Your task to perform on an android device: Open the web browser Image 0: 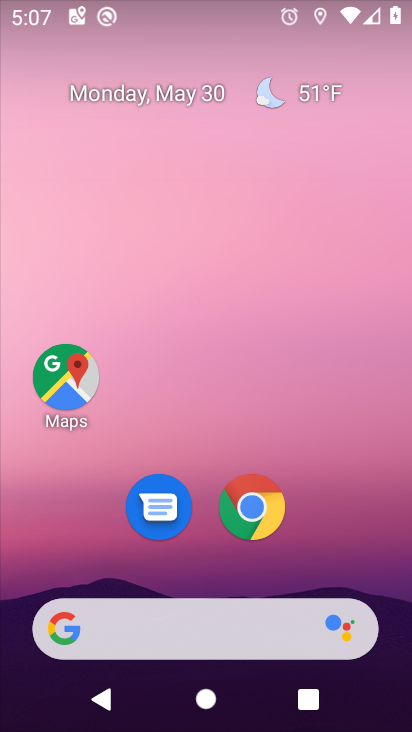
Step 0: click (283, 504)
Your task to perform on an android device: Open the web browser Image 1: 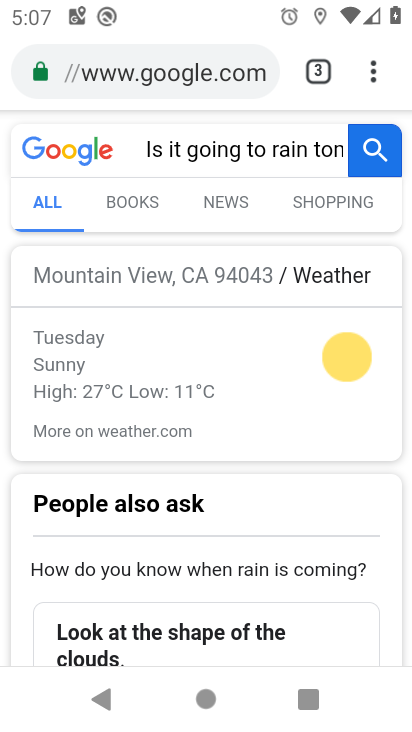
Step 1: click (160, 71)
Your task to perform on an android device: Open the web browser Image 2: 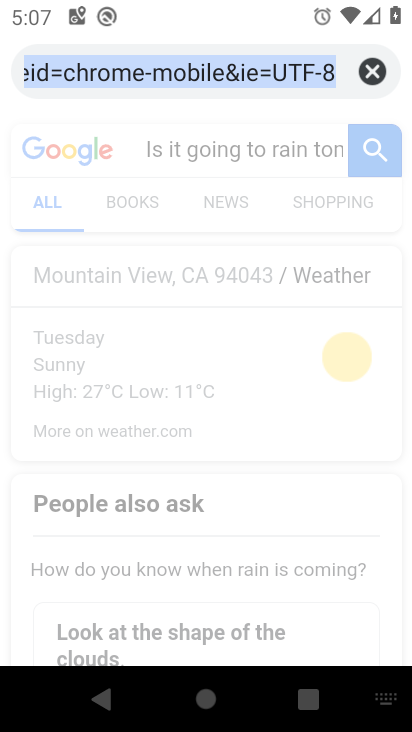
Step 2: click (376, 74)
Your task to perform on an android device: Open the web browser Image 3: 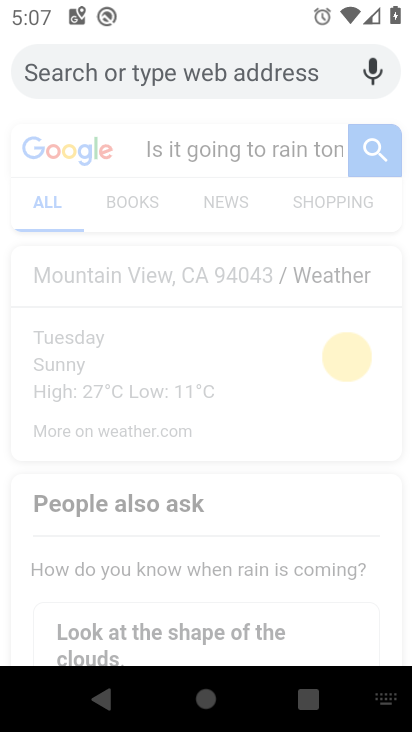
Step 3: type "web browser"
Your task to perform on an android device: Open the web browser Image 4: 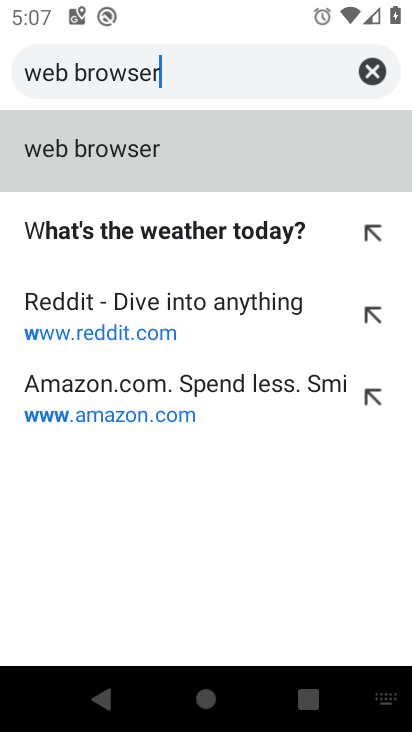
Step 4: type ""
Your task to perform on an android device: Open the web browser Image 5: 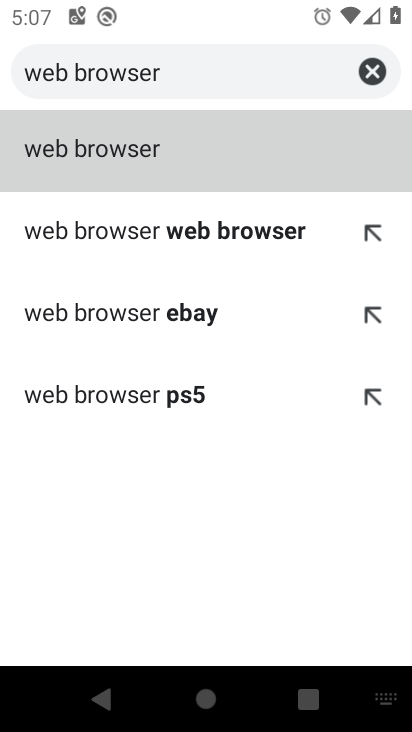
Step 5: click (178, 120)
Your task to perform on an android device: Open the web browser Image 6: 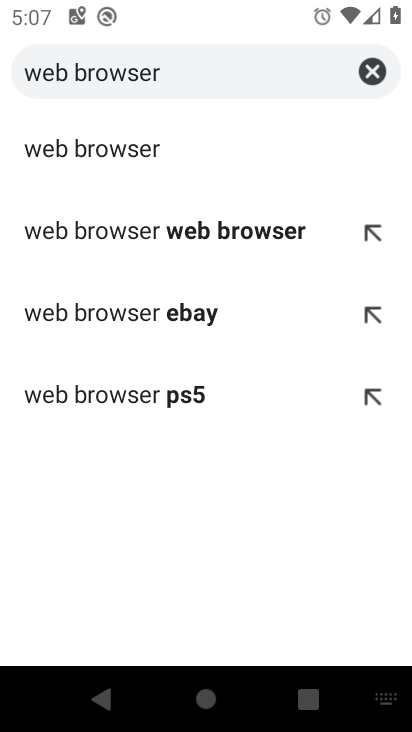
Step 6: click (103, 163)
Your task to perform on an android device: Open the web browser Image 7: 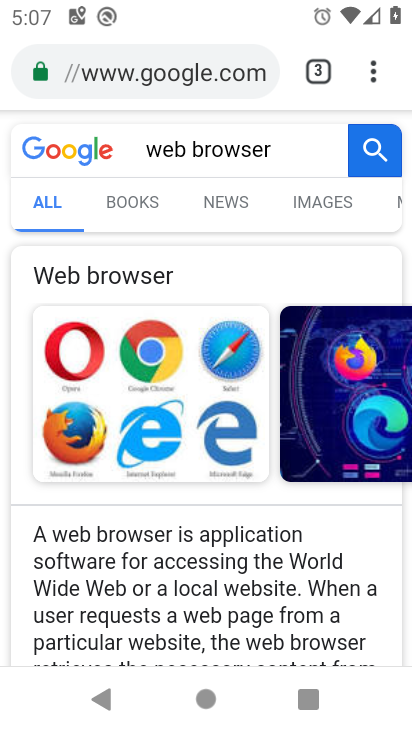
Step 7: task complete